Your task to perform on an android device: turn off wifi Image 0: 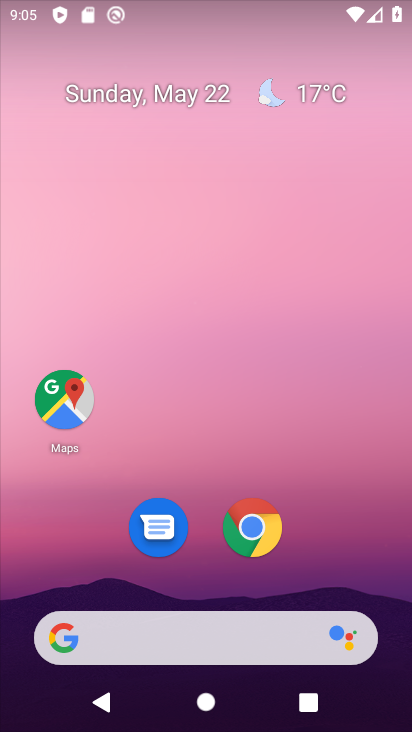
Step 0: drag from (326, 558) to (239, 60)
Your task to perform on an android device: turn off wifi Image 1: 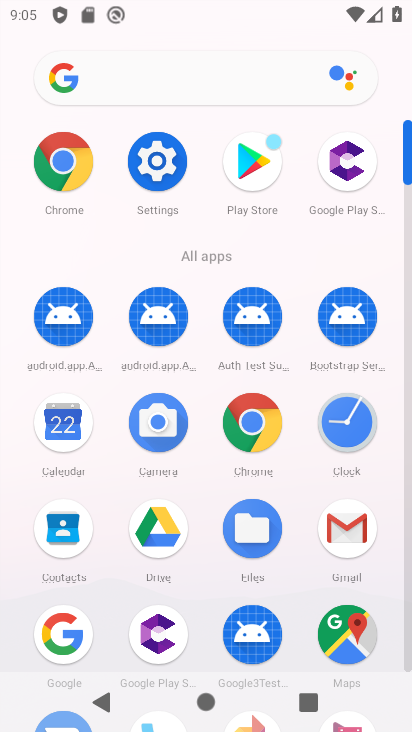
Step 1: click (150, 157)
Your task to perform on an android device: turn off wifi Image 2: 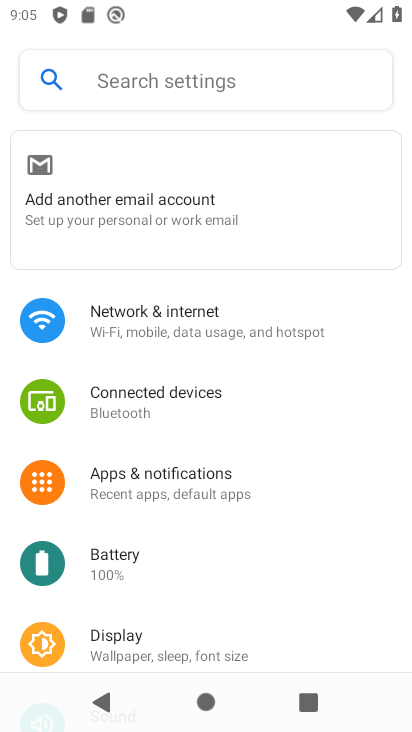
Step 2: click (157, 313)
Your task to perform on an android device: turn off wifi Image 3: 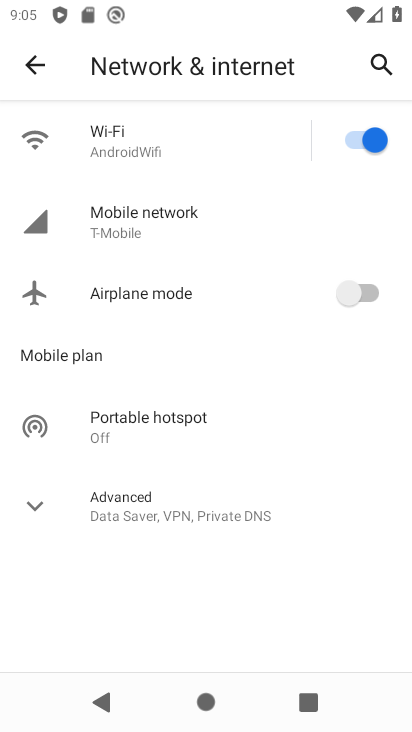
Step 3: click (357, 134)
Your task to perform on an android device: turn off wifi Image 4: 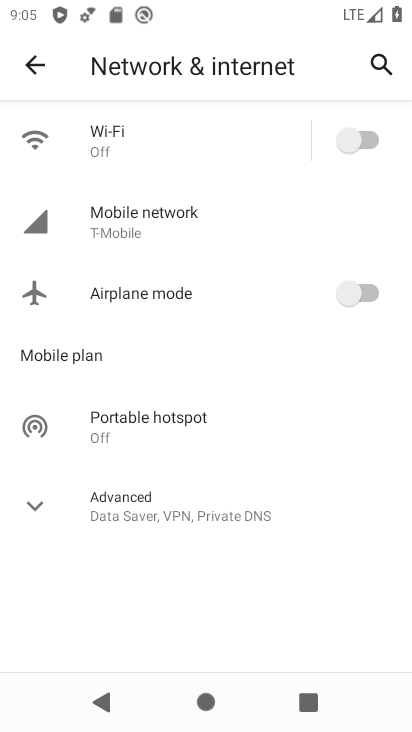
Step 4: task complete